Your task to perform on an android device: Check the weather Image 0: 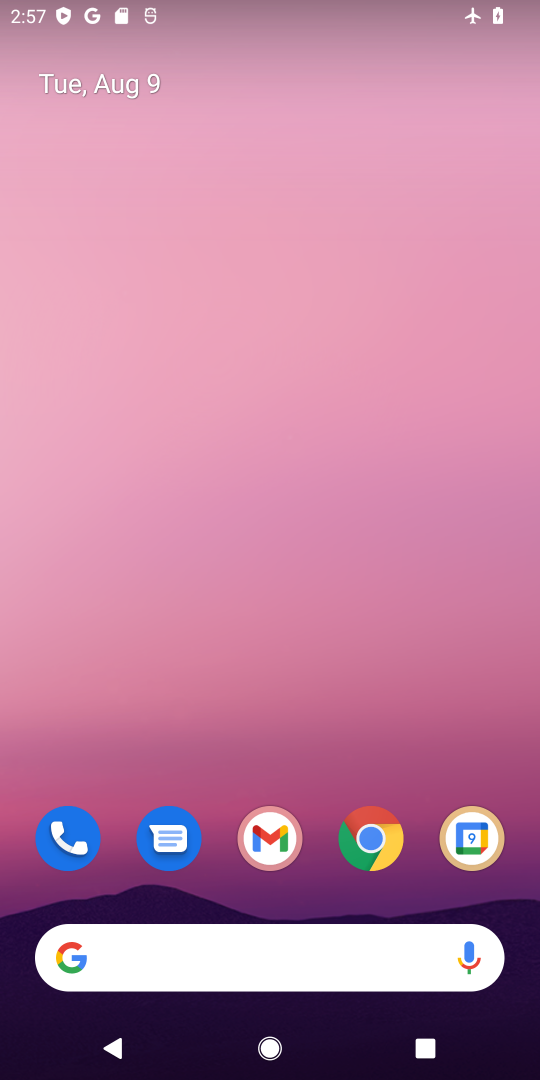
Step 0: drag from (264, 490) to (129, 13)
Your task to perform on an android device: Check the weather Image 1: 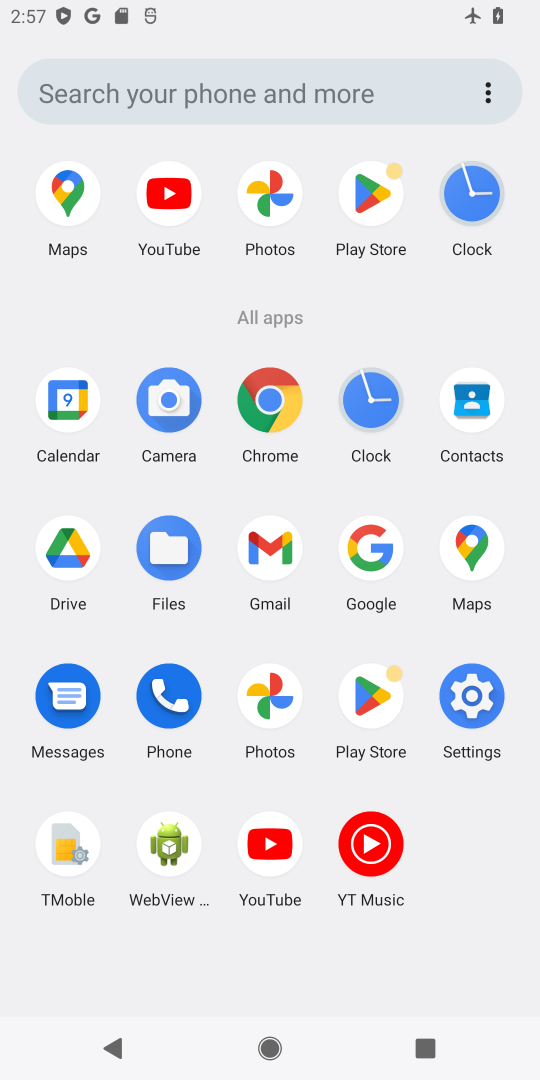
Step 1: click (277, 400)
Your task to perform on an android device: Check the weather Image 2: 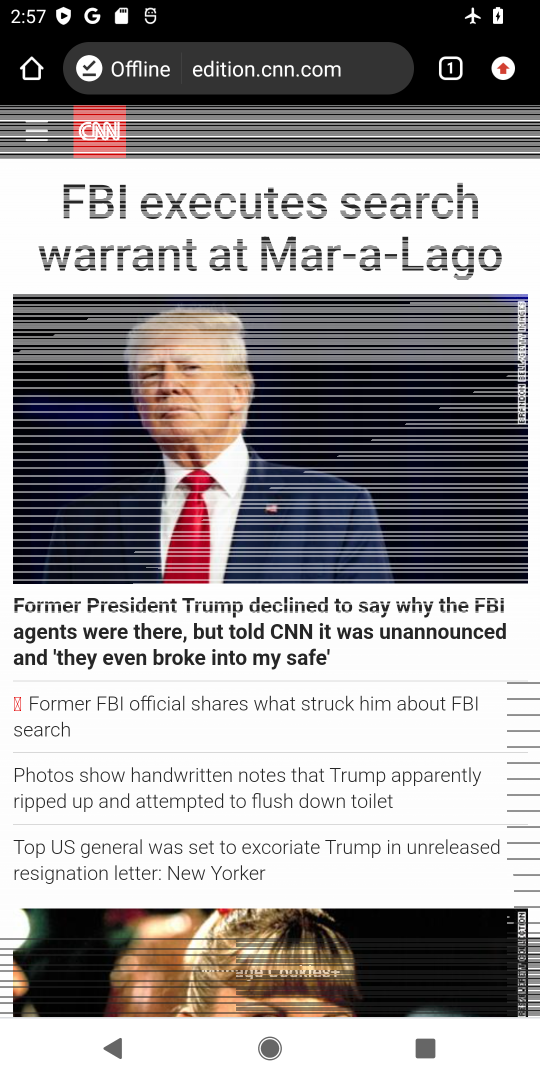
Step 2: click (262, 83)
Your task to perform on an android device: Check the weather Image 3: 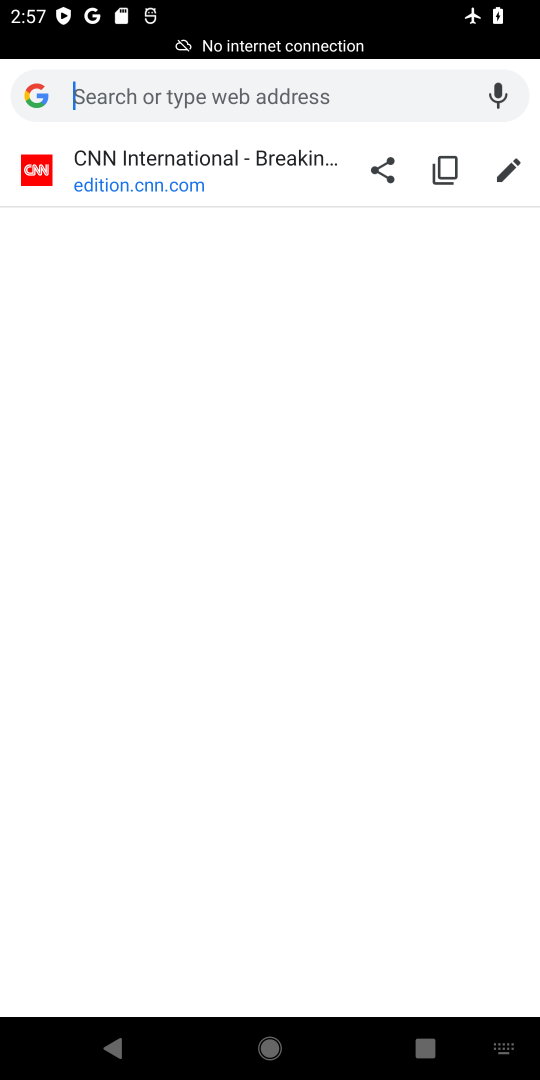
Step 3: type "weather"
Your task to perform on an android device: Check the weather Image 4: 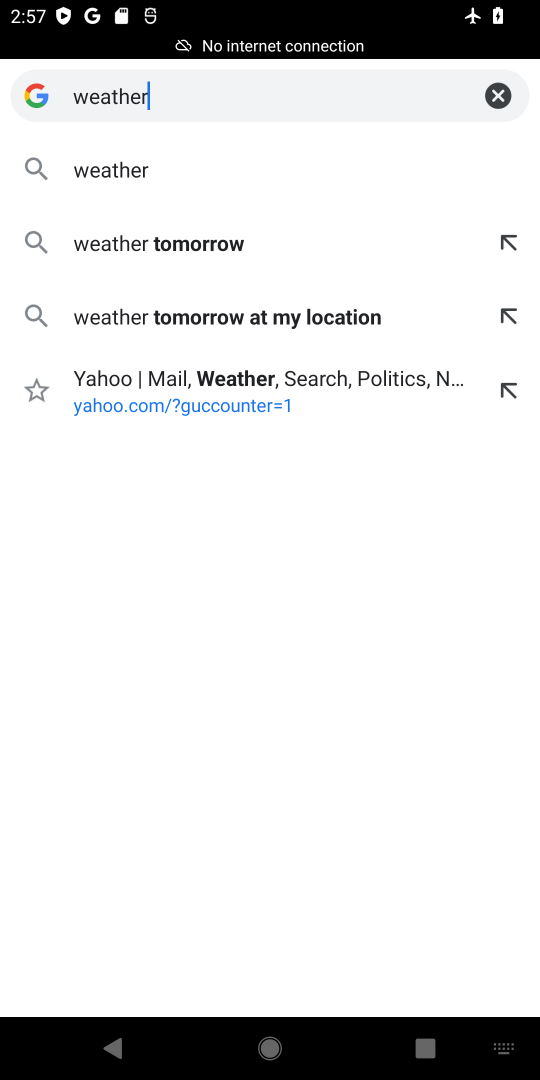
Step 4: click (117, 184)
Your task to perform on an android device: Check the weather Image 5: 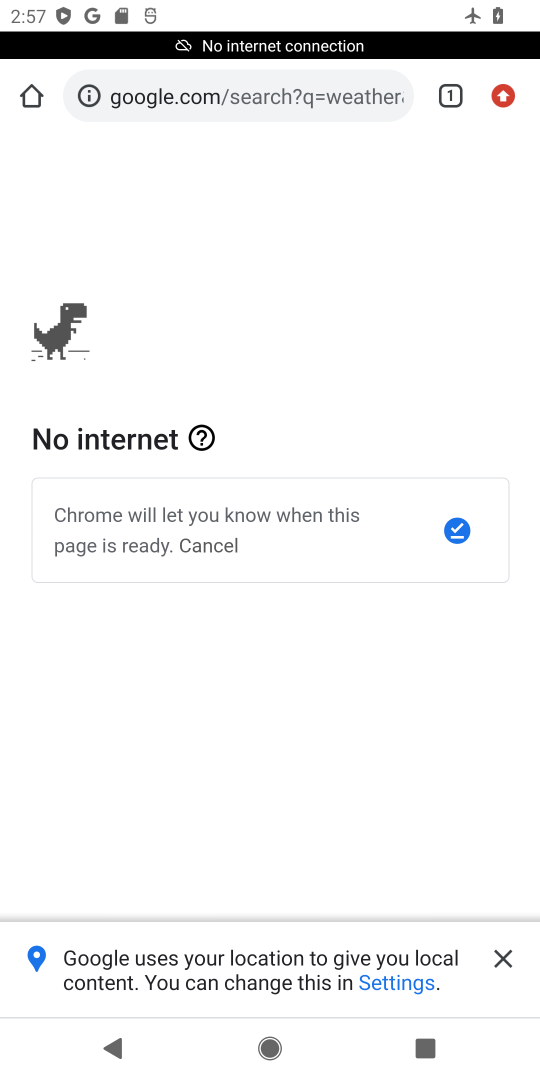
Step 5: task complete